Your task to perform on an android device: Add dell xps to the cart on bestbuy Image 0: 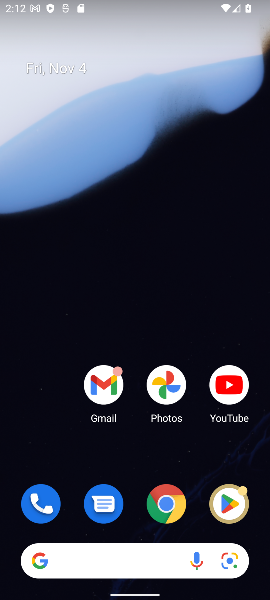
Step 0: click (170, 513)
Your task to perform on an android device: Add dell xps to the cart on bestbuy Image 1: 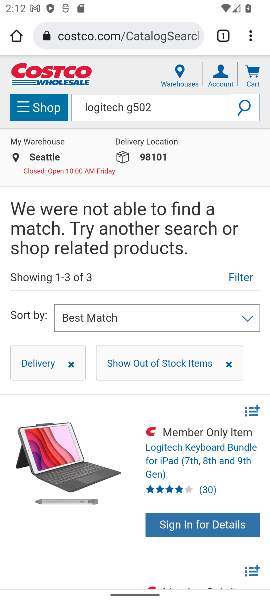
Step 1: click (143, 39)
Your task to perform on an android device: Add dell xps to the cart on bestbuy Image 2: 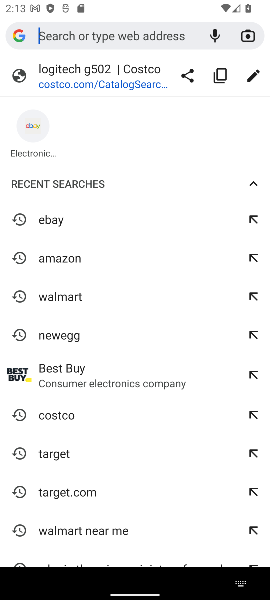
Step 2: type "bestbuy.com"
Your task to perform on an android device: Add dell xps to the cart on bestbuy Image 3: 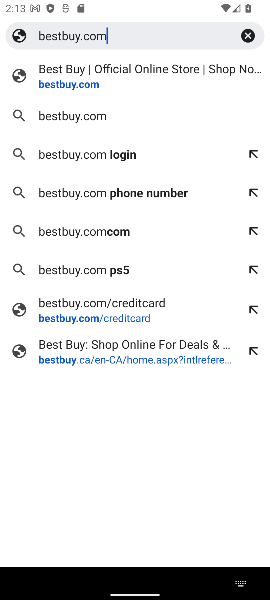
Step 3: click (87, 90)
Your task to perform on an android device: Add dell xps to the cart on bestbuy Image 4: 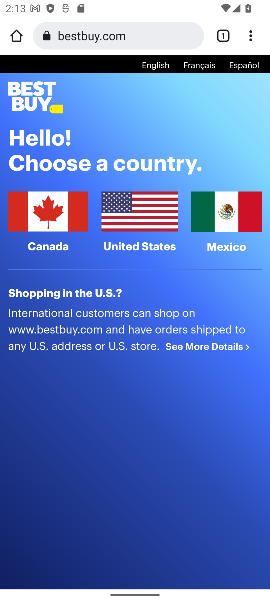
Step 4: click (135, 213)
Your task to perform on an android device: Add dell xps to the cart on bestbuy Image 5: 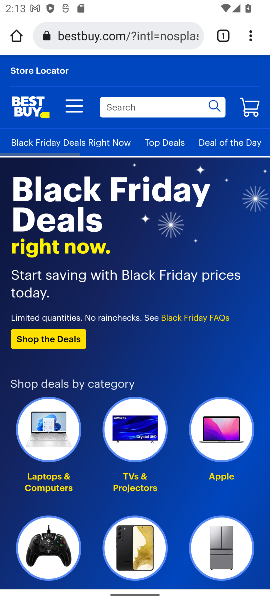
Step 5: click (139, 107)
Your task to perform on an android device: Add dell xps to the cart on bestbuy Image 6: 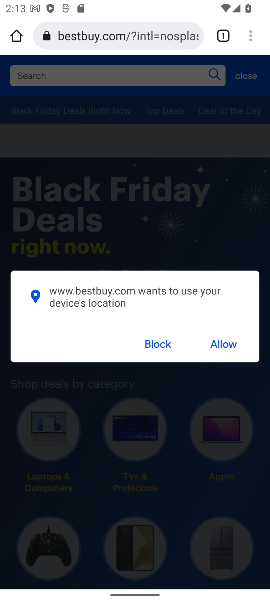
Step 6: click (159, 346)
Your task to perform on an android device: Add dell xps to the cart on bestbuy Image 7: 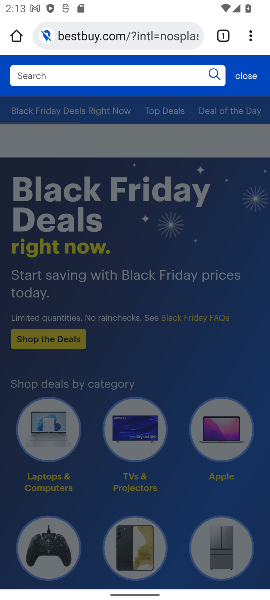
Step 7: click (66, 78)
Your task to perform on an android device: Add dell xps to the cart on bestbuy Image 8: 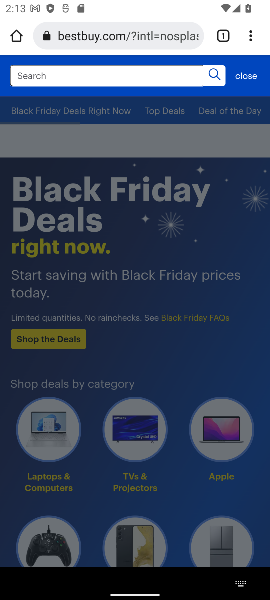
Step 8: type "dellxps"
Your task to perform on an android device: Add dell xps to the cart on bestbuy Image 9: 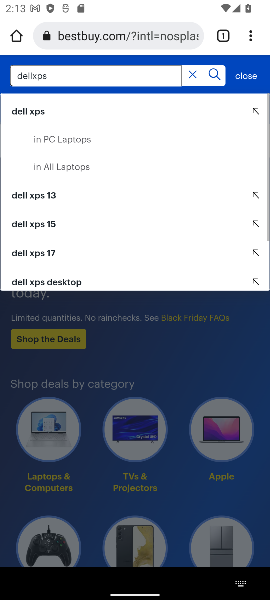
Step 9: click (23, 111)
Your task to perform on an android device: Add dell xps to the cart on bestbuy Image 10: 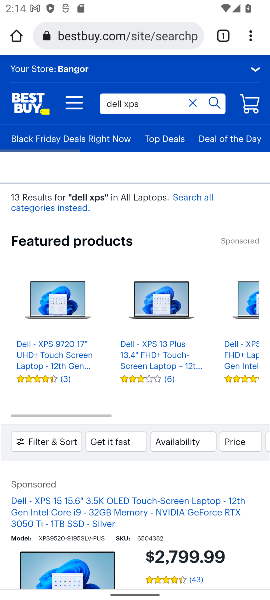
Step 10: drag from (165, 403) to (160, 211)
Your task to perform on an android device: Add dell xps to the cart on bestbuy Image 11: 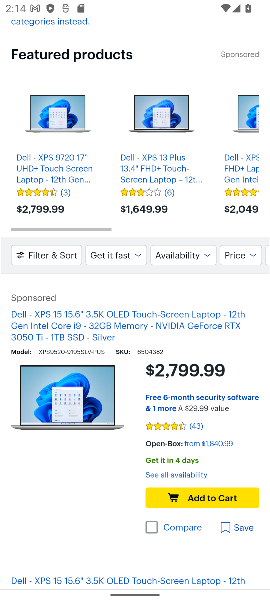
Step 11: click (75, 381)
Your task to perform on an android device: Add dell xps to the cart on bestbuy Image 12: 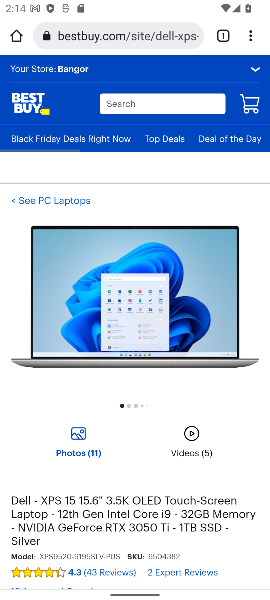
Step 12: drag from (137, 451) to (139, 265)
Your task to perform on an android device: Add dell xps to the cart on bestbuy Image 13: 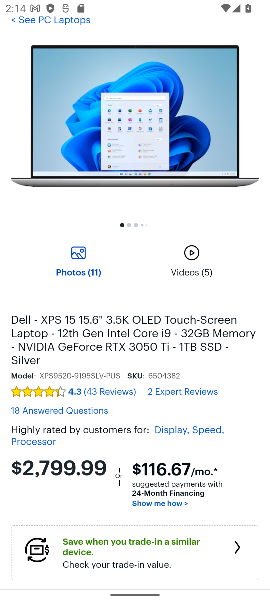
Step 13: drag from (139, 441) to (150, 270)
Your task to perform on an android device: Add dell xps to the cart on bestbuy Image 14: 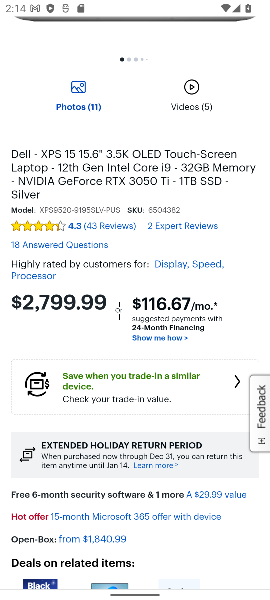
Step 14: drag from (135, 434) to (140, 251)
Your task to perform on an android device: Add dell xps to the cart on bestbuy Image 15: 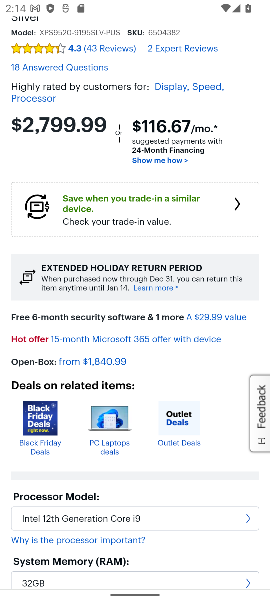
Step 15: drag from (129, 463) to (123, 249)
Your task to perform on an android device: Add dell xps to the cart on bestbuy Image 16: 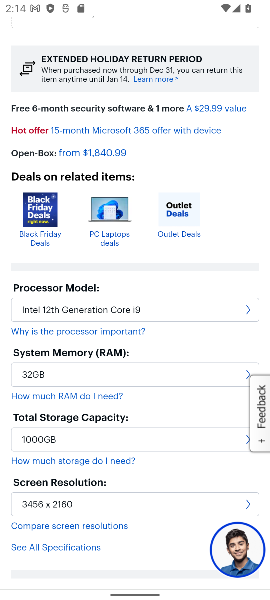
Step 16: drag from (117, 398) to (136, 221)
Your task to perform on an android device: Add dell xps to the cart on bestbuy Image 17: 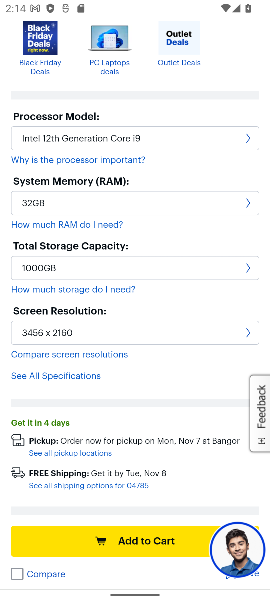
Step 17: drag from (134, 343) to (159, 224)
Your task to perform on an android device: Add dell xps to the cart on bestbuy Image 18: 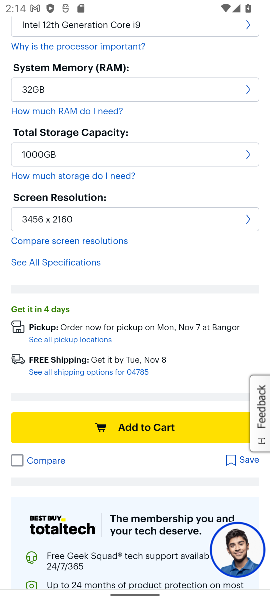
Step 18: click (145, 434)
Your task to perform on an android device: Add dell xps to the cart on bestbuy Image 19: 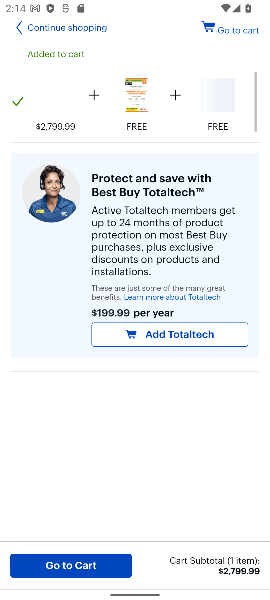
Step 19: task complete